Your task to perform on an android device: Do I have any events today? Image 0: 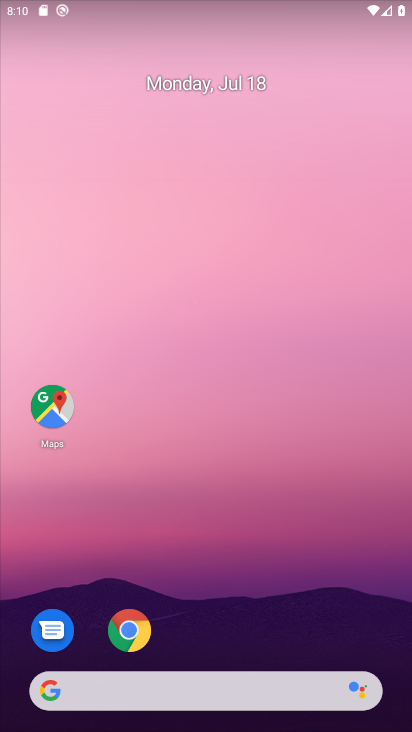
Step 0: drag from (209, 605) to (213, 282)
Your task to perform on an android device: Do I have any events today? Image 1: 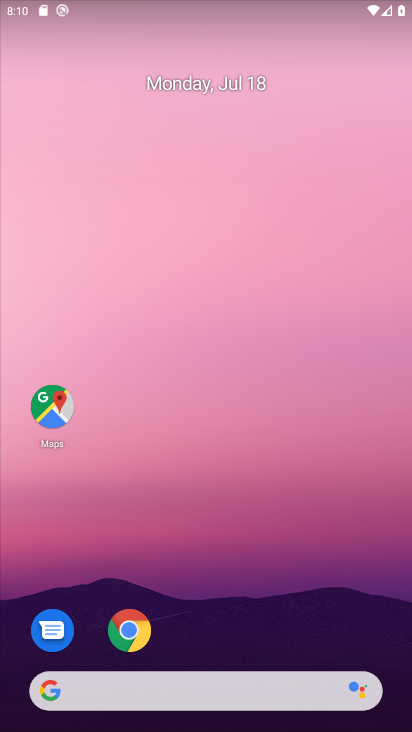
Step 1: drag from (223, 573) to (204, 167)
Your task to perform on an android device: Do I have any events today? Image 2: 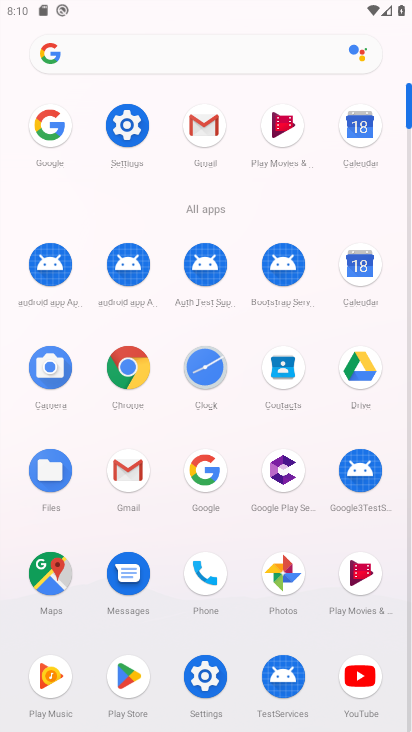
Step 2: click (355, 251)
Your task to perform on an android device: Do I have any events today? Image 3: 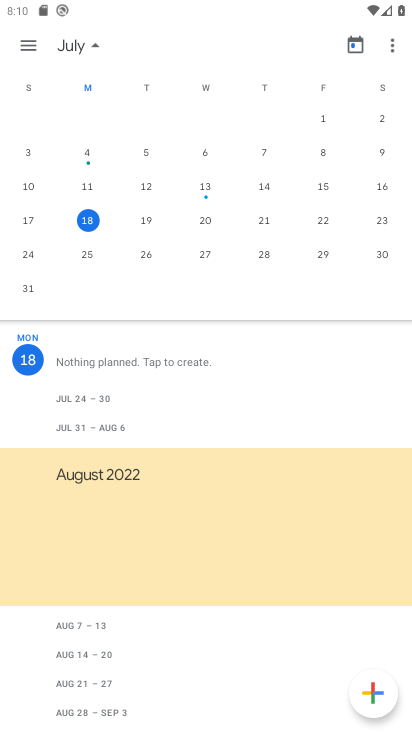
Step 3: task complete